Your task to perform on an android device: Is it going to rain today? Image 0: 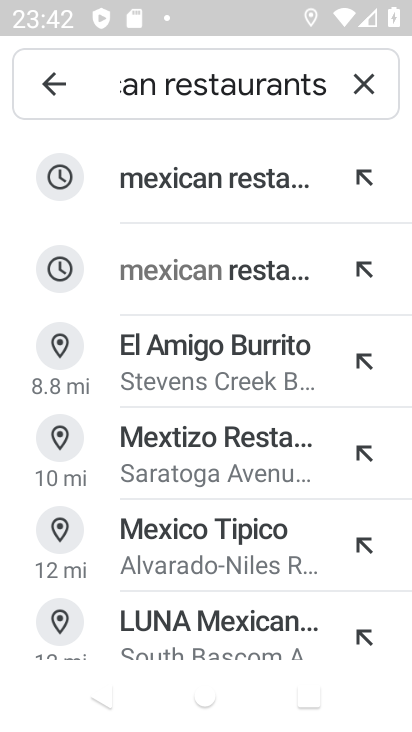
Step 0: press home button
Your task to perform on an android device: Is it going to rain today? Image 1: 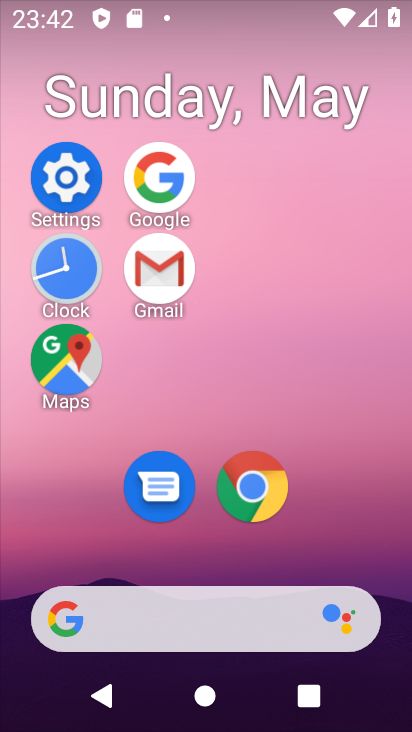
Step 1: click (163, 186)
Your task to perform on an android device: Is it going to rain today? Image 2: 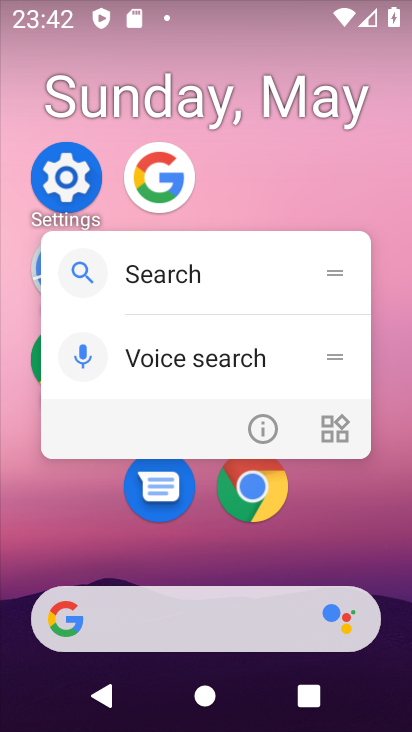
Step 2: click (185, 158)
Your task to perform on an android device: Is it going to rain today? Image 3: 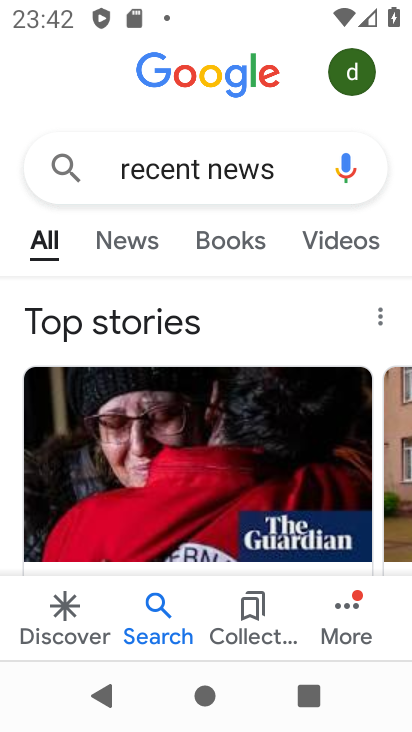
Step 3: click (282, 168)
Your task to perform on an android device: Is it going to rain today? Image 4: 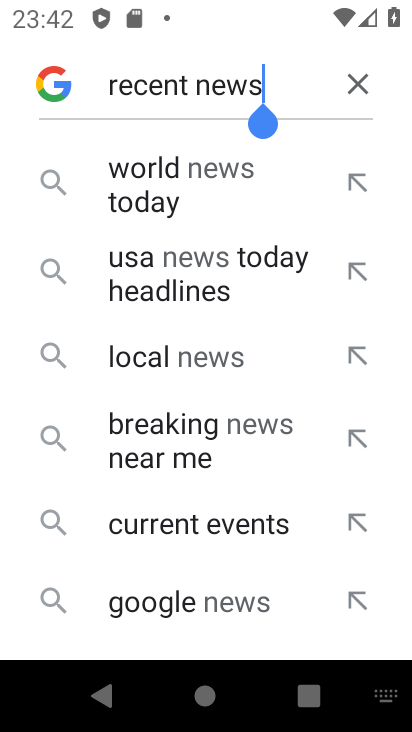
Step 4: click (357, 82)
Your task to perform on an android device: Is it going to rain today? Image 5: 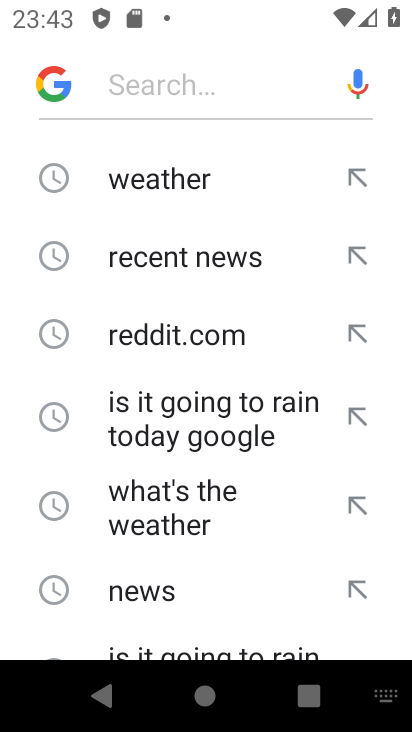
Step 5: drag from (227, 577) to (231, 154)
Your task to perform on an android device: Is it going to rain today? Image 6: 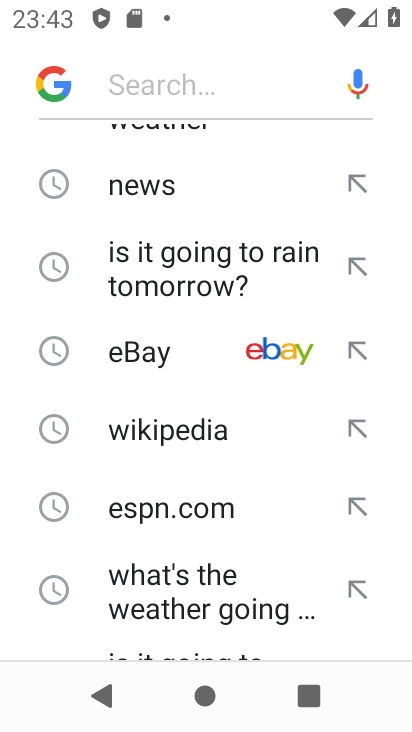
Step 6: drag from (226, 195) to (250, 543)
Your task to perform on an android device: Is it going to rain today? Image 7: 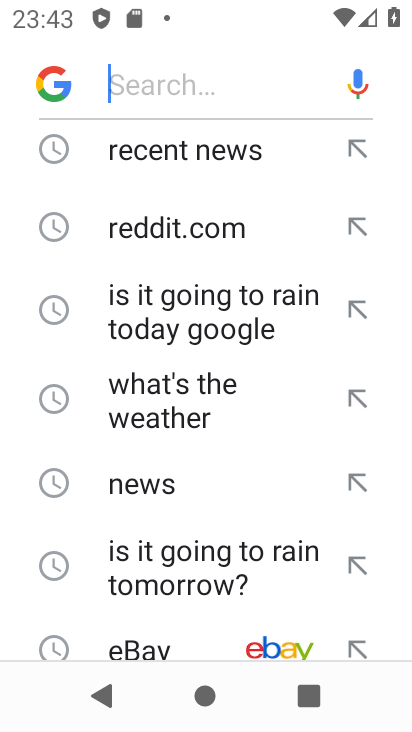
Step 7: click (229, 411)
Your task to perform on an android device: Is it going to rain today? Image 8: 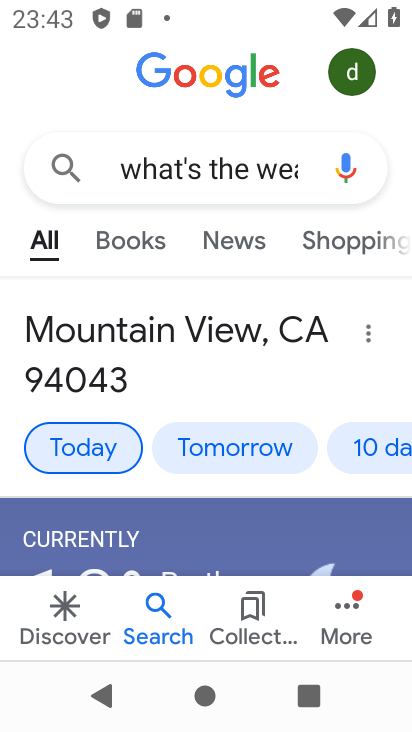
Step 8: task complete